Your task to perform on an android device: Open maps Image 0: 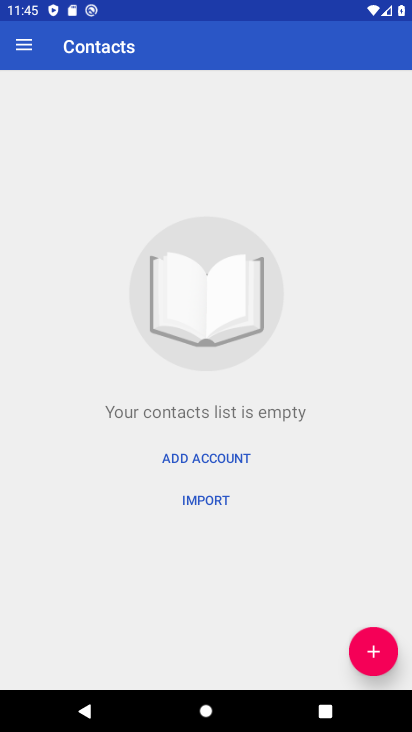
Step 0: press home button
Your task to perform on an android device: Open maps Image 1: 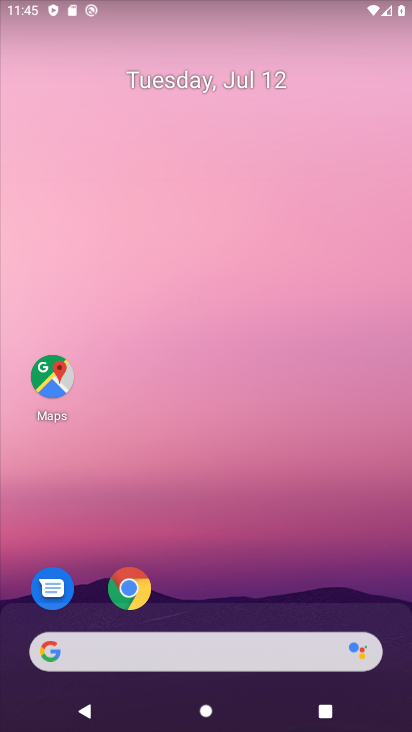
Step 1: drag from (184, 455) to (193, 229)
Your task to perform on an android device: Open maps Image 2: 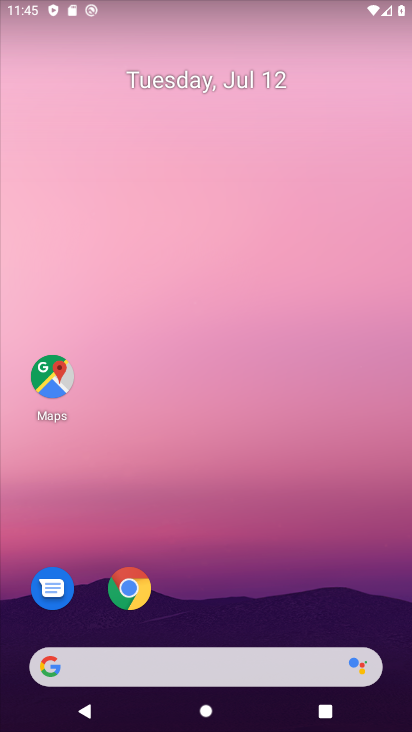
Step 2: click (53, 377)
Your task to perform on an android device: Open maps Image 3: 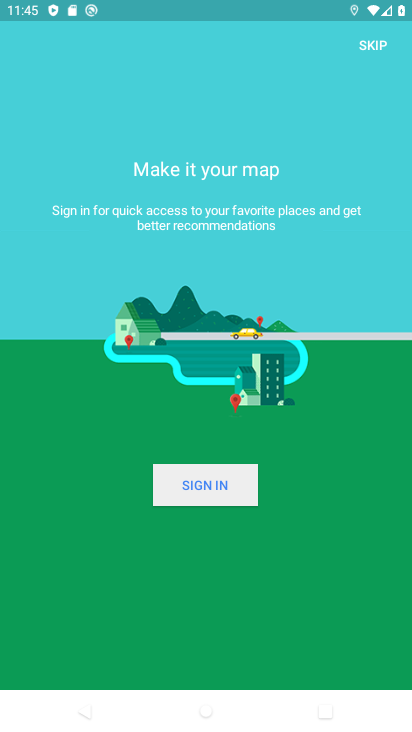
Step 3: click (383, 47)
Your task to perform on an android device: Open maps Image 4: 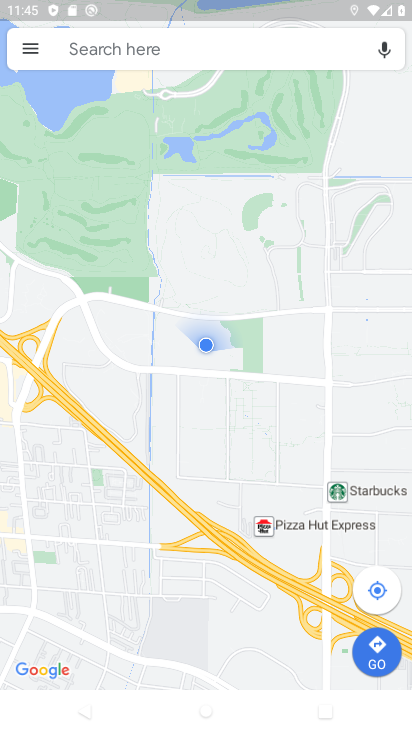
Step 4: task complete